Your task to perform on an android device: change text size in settings app Image 0: 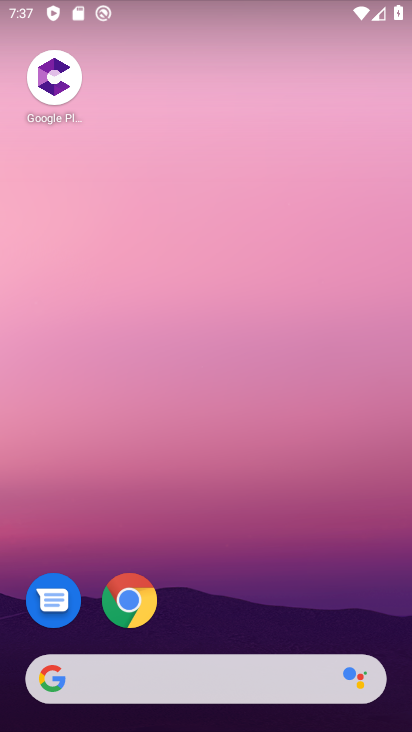
Step 0: drag from (196, 648) to (242, 327)
Your task to perform on an android device: change text size in settings app Image 1: 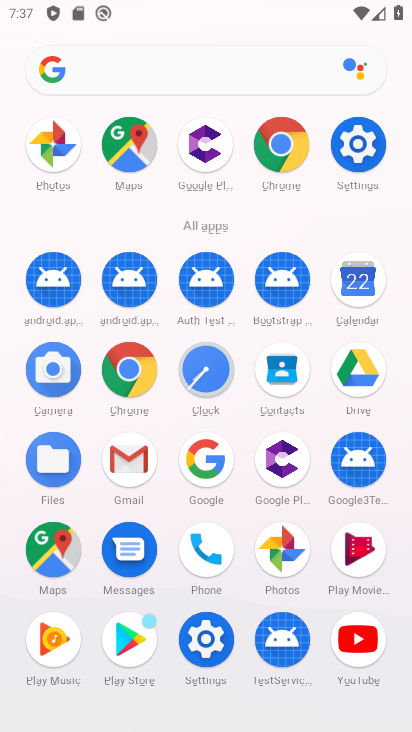
Step 1: click (373, 139)
Your task to perform on an android device: change text size in settings app Image 2: 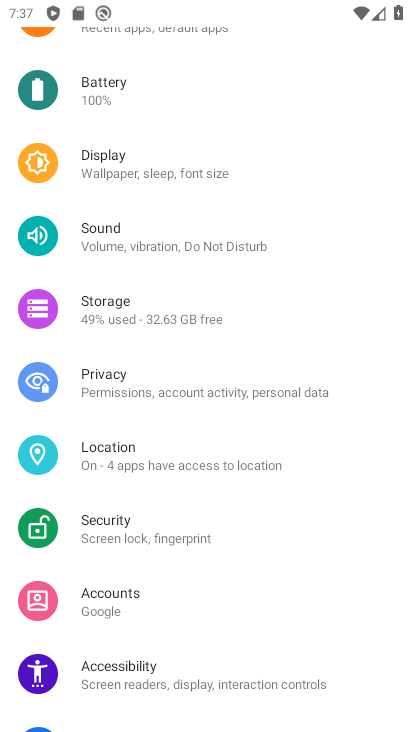
Step 2: click (169, 675)
Your task to perform on an android device: change text size in settings app Image 3: 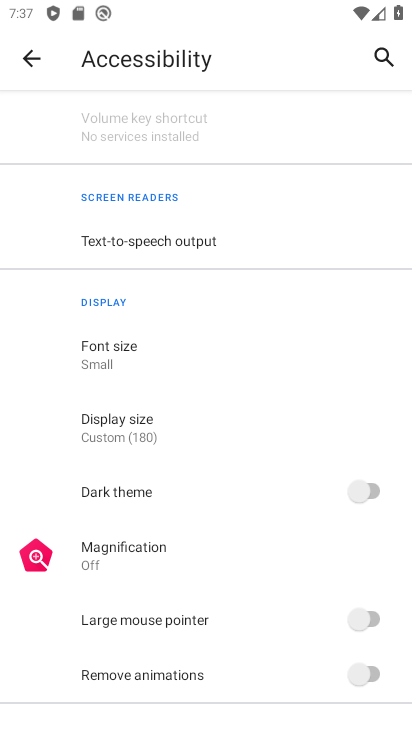
Step 3: click (105, 350)
Your task to perform on an android device: change text size in settings app Image 4: 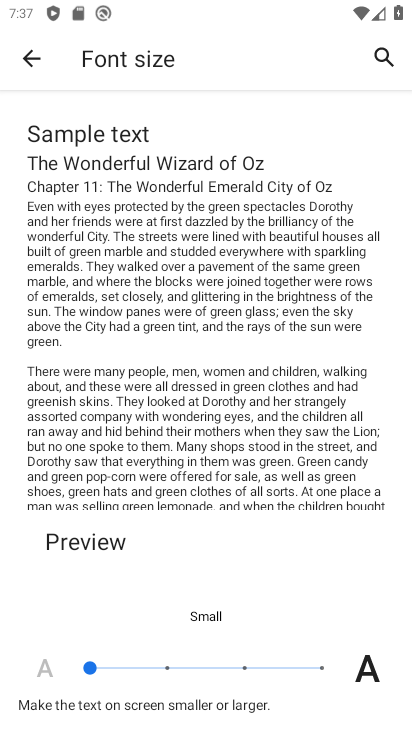
Step 4: click (161, 670)
Your task to perform on an android device: change text size in settings app Image 5: 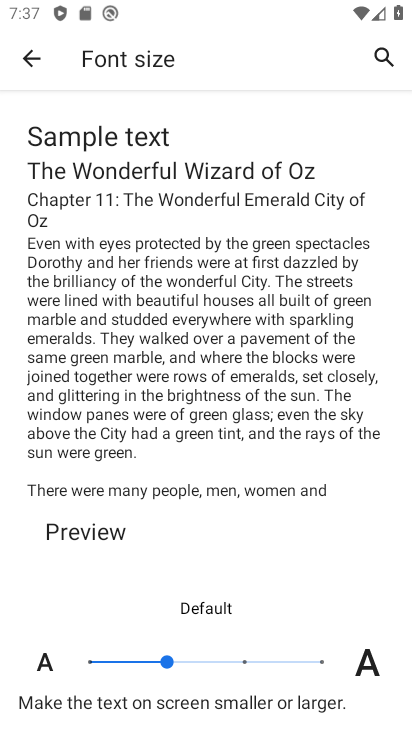
Step 5: task complete